Your task to perform on an android device: change the clock style Image 0: 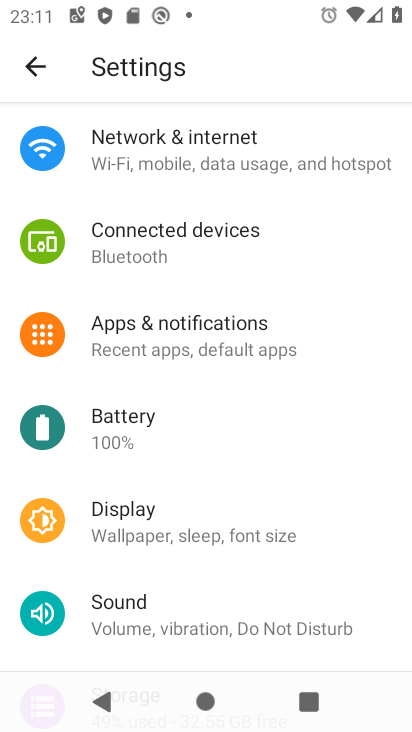
Step 0: press home button
Your task to perform on an android device: change the clock style Image 1: 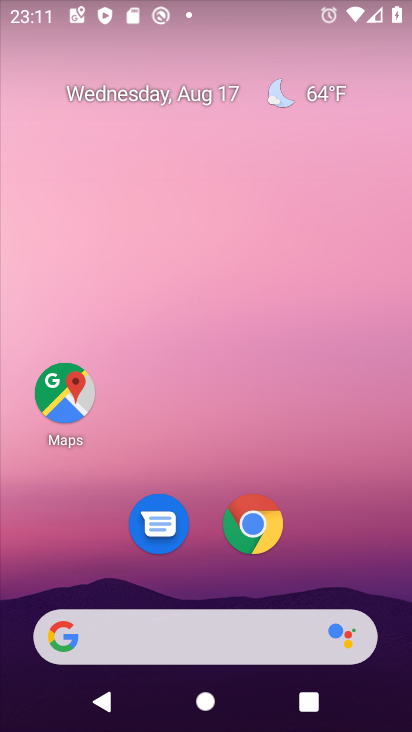
Step 1: drag from (307, 541) to (306, 50)
Your task to perform on an android device: change the clock style Image 2: 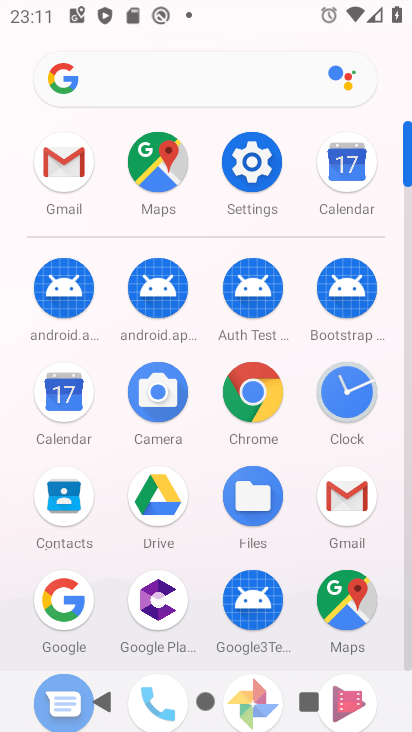
Step 2: click (347, 384)
Your task to perform on an android device: change the clock style Image 3: 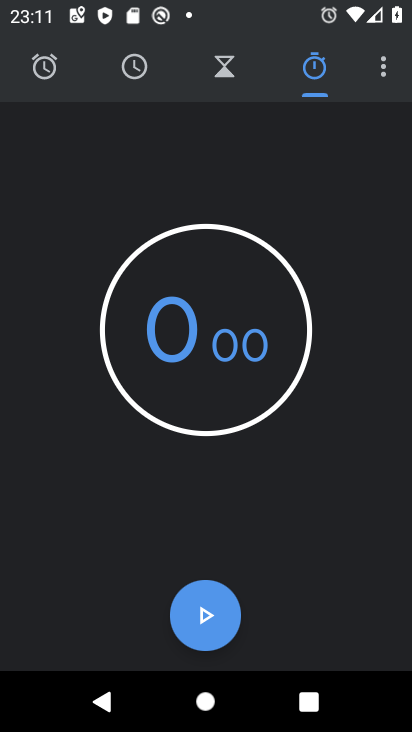
Step 3: click (138, 69)
Your task to perform on an android device: change the clock style Image 4: 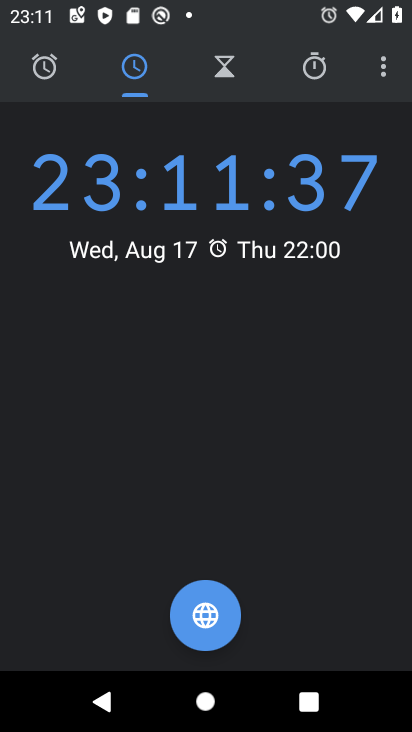
Step 4: click (387, 73)
Your task to perform on an android device: change the clock style Image 5: 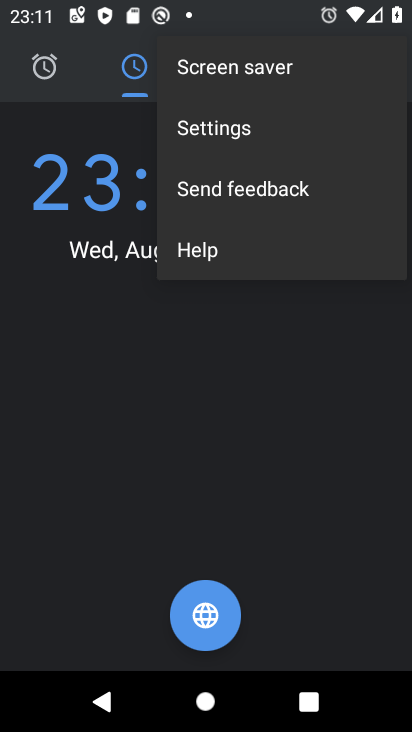
Step 5: click (280, 125)
Your task to perform on an android device: change the clock style Image 6: 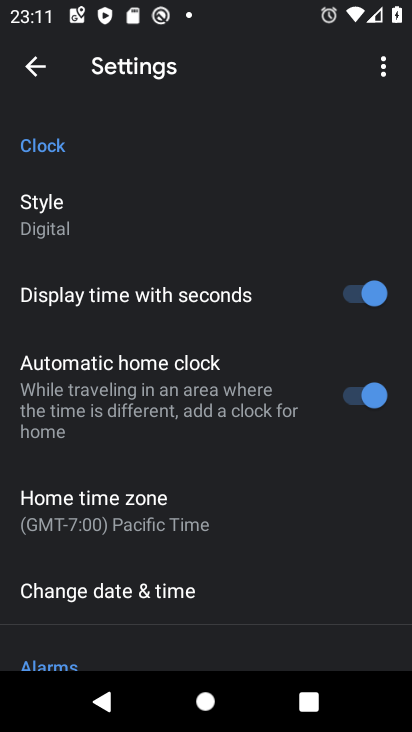
Step 6: click (67, 217)
Your task to perform on an android device: change the clock style Image 7: 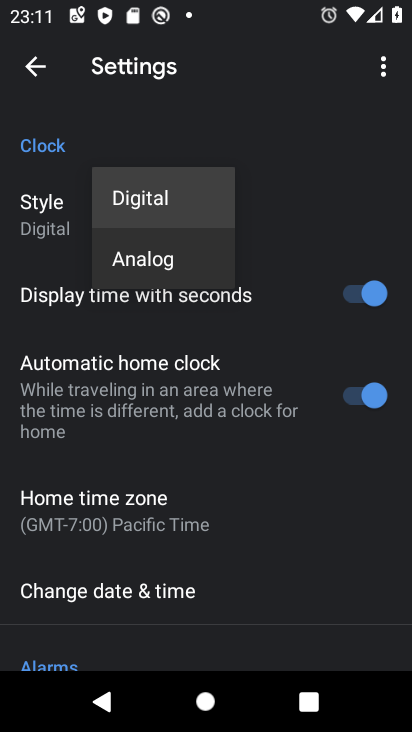
Step 7: click (129, 257)
Your task to perform on an android device: change the clock style Image 8: 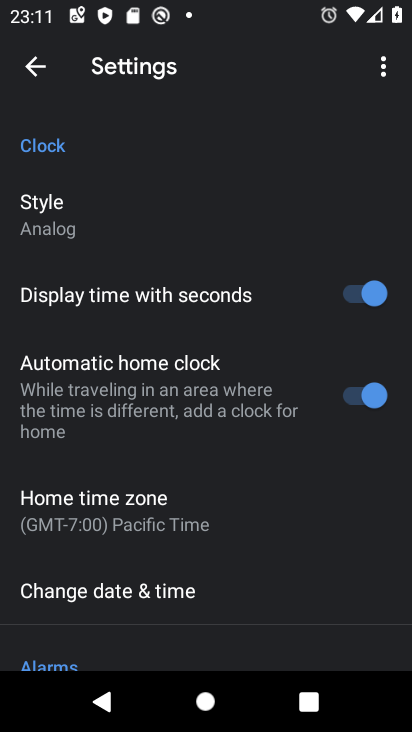
Step 8: click (37, 68)
Your task to perform on an android device: change the clock style Image 9: 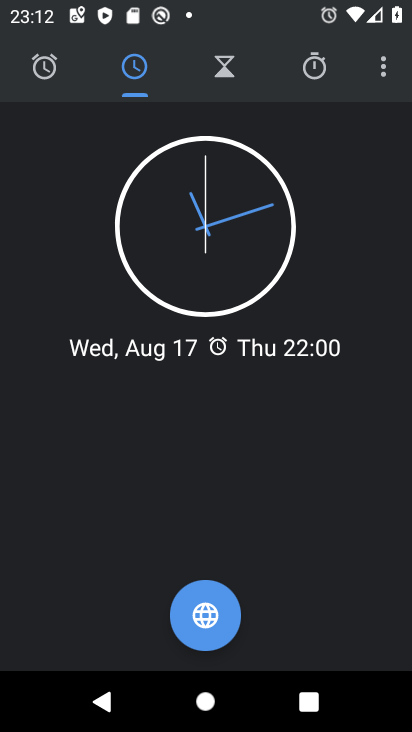
Step 9: task complete